Your task to perform on an android device: Open Youtube and go to the subscriptions tab Image 0: 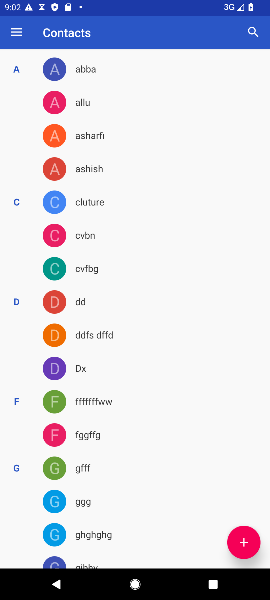
Step 0: press home button
Your task to perform on an android device: Open Youtube and go to the subscriptions tab Image 1: 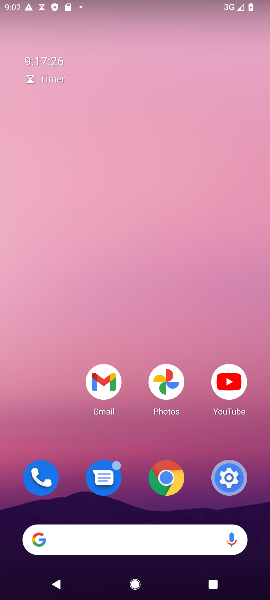
Step 1: click (236, 370)
Your task to perform on an android device: Open Youtube and go to the subscriptions tab Image 2: 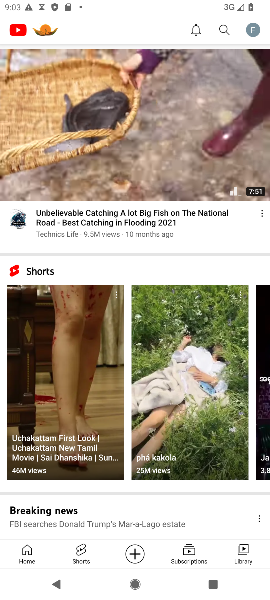
Step 2: click (194, 559)
Your task to perform on an android device: Open Youtube and go to the subscriptions tab Image 3: 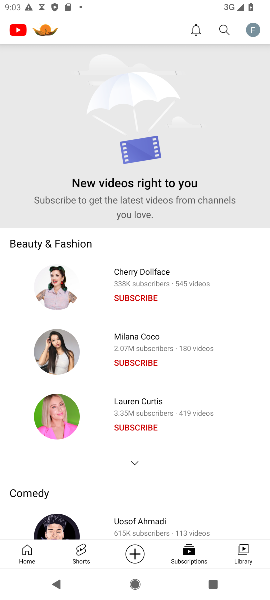
Step 3: task complete